Your task to perform on an android device: When is my next meeting? Image 0: 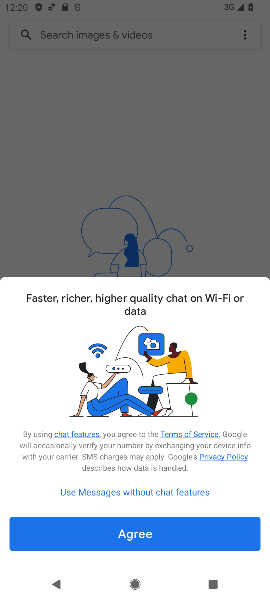
Step 0: press home button
Your task to perform on an android device: When is my next meeting? Image 1: 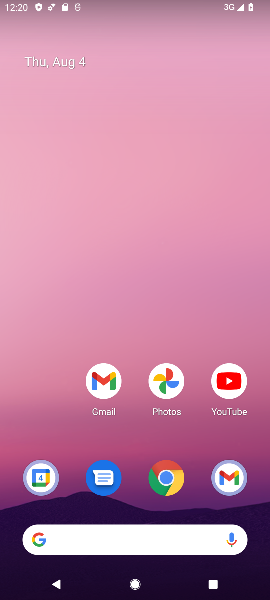
Step 1: drag from (123, 441) to (131, 2)
Your task to perform on an android device: When is my next meeting? Image 2: 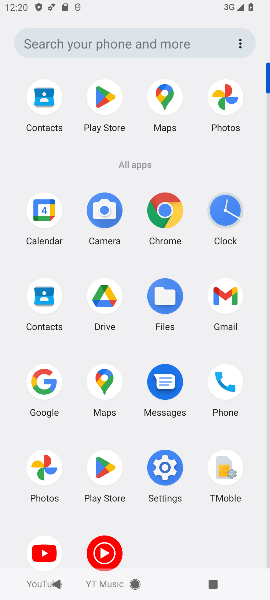
Step 2: click (44, 210)
Your task to perform on an android device: When is my next meeting? Image 3: 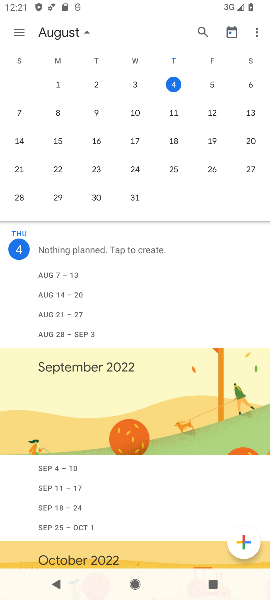
Step 3: click (210, 78)
Your task to perform on an android device: When is my next meeting? Image 4: 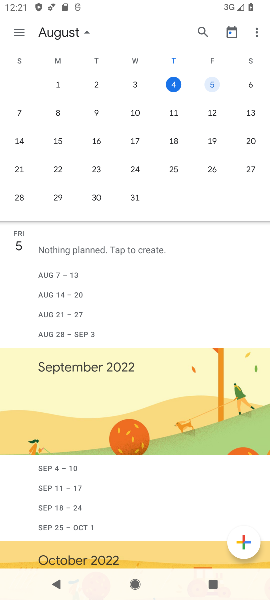
Step 4: task complete